Your task to perform on an android device: Open eBay Image 0: 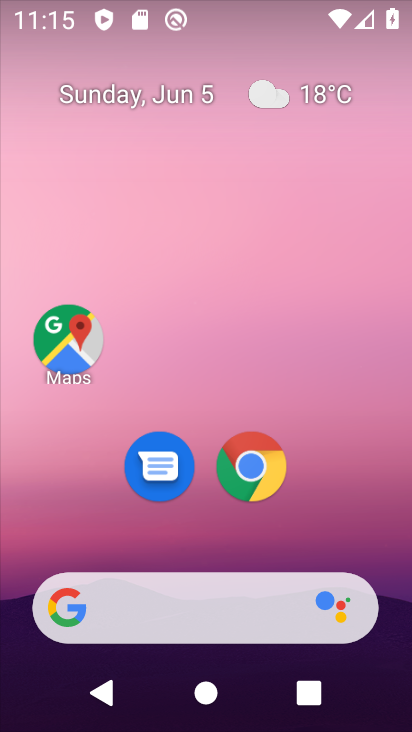
Step 0: press home button
Your task to perform on an android device: Open eBay Image 1: 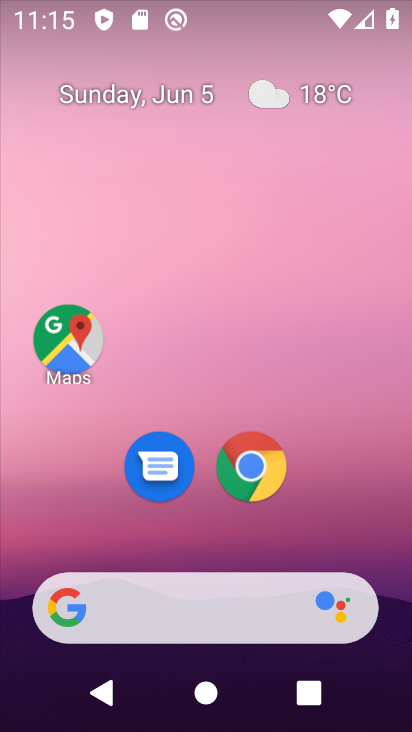
Step 1: drag from (365, 517) to (371, 83)
Your task to perform on an android device: Open eBay Image 2: 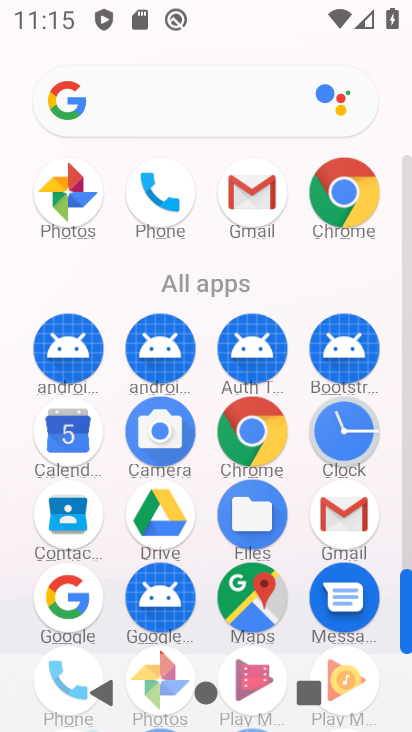
Step 2: click (252, 423)
Your task to perform on an android device: Open eBay Image 3: 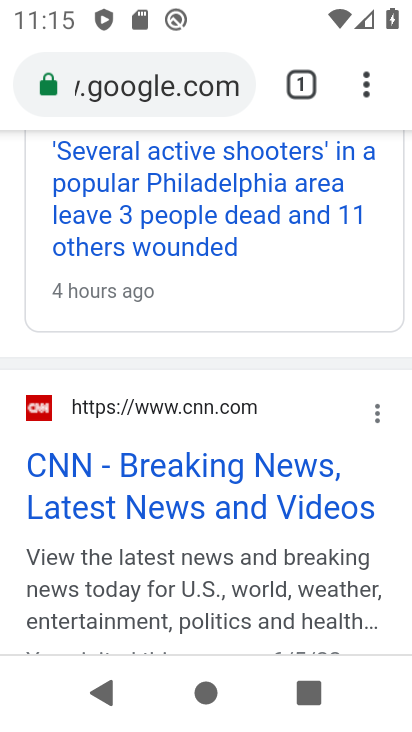
Step 3: click (160, 91)
Your task to perform on an android device: Open eBay Image 4: 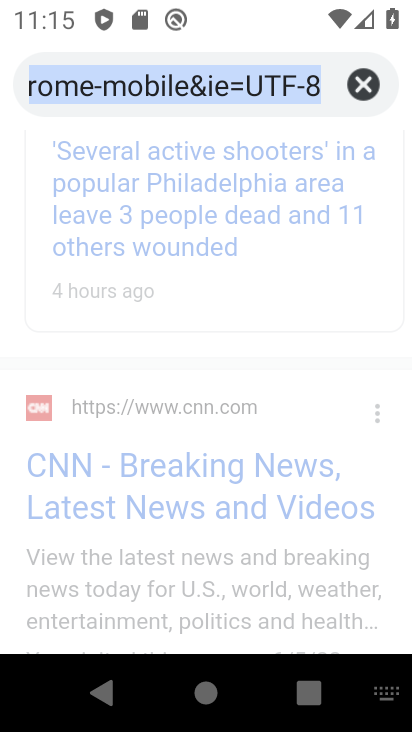
Step 4: click (371, 83)
Your task to perform on an android device: Open eBay Image 5: 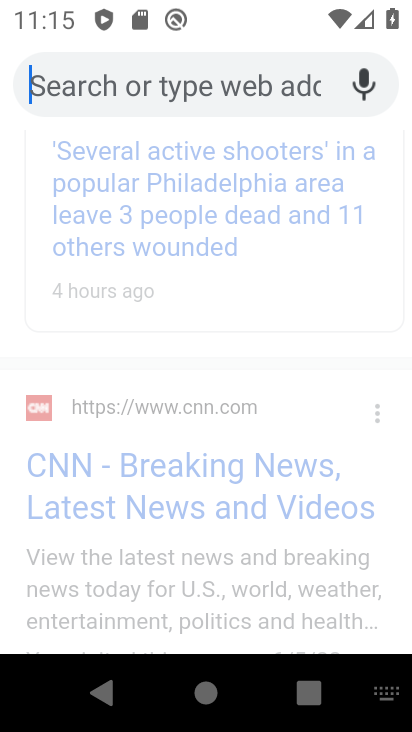
Step 5: type "ebay"
Your task to perform on an android device: Open eBay Image 6: 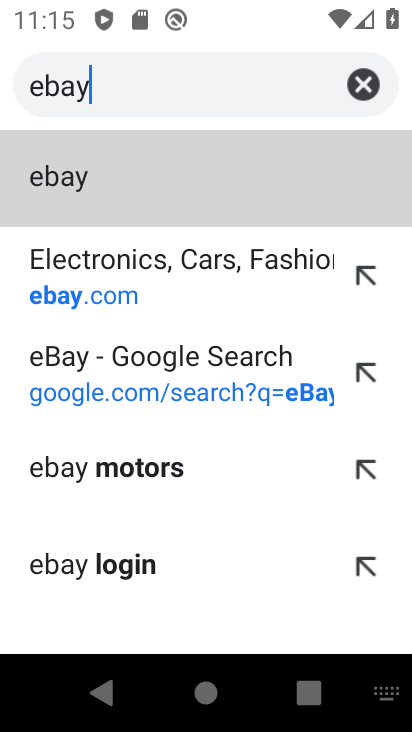
Step 6: click (138, 209)
Your task to perform on an android device: Open eBay Image 7: 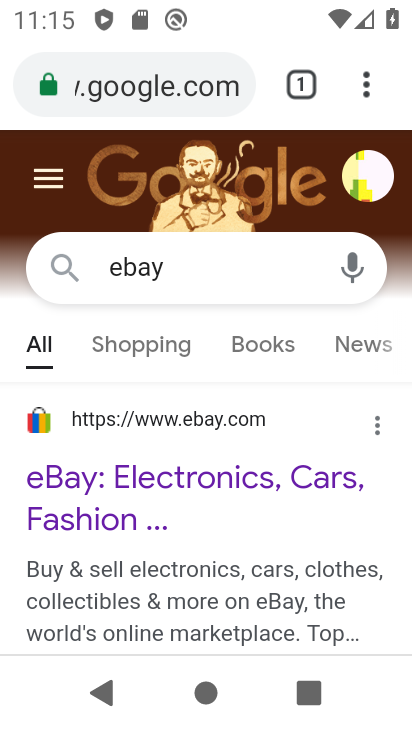
Step 7: task complete